Your task to perform on an android device: open a new tab in the chrome app Image 0: 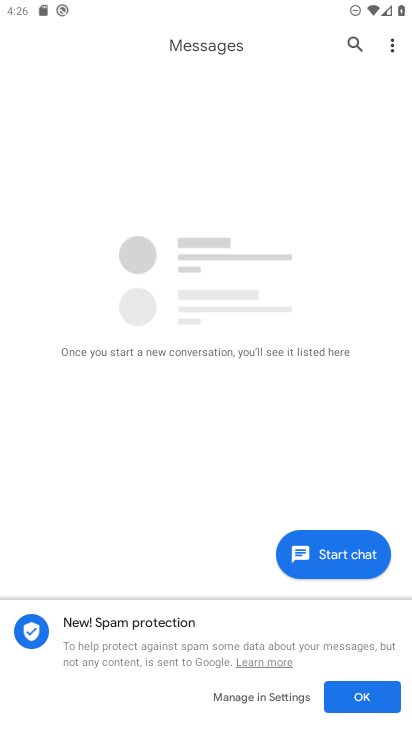
Step 0: press home button
Your task to perform on an android device: open a new tab in the chrome app Image 1: 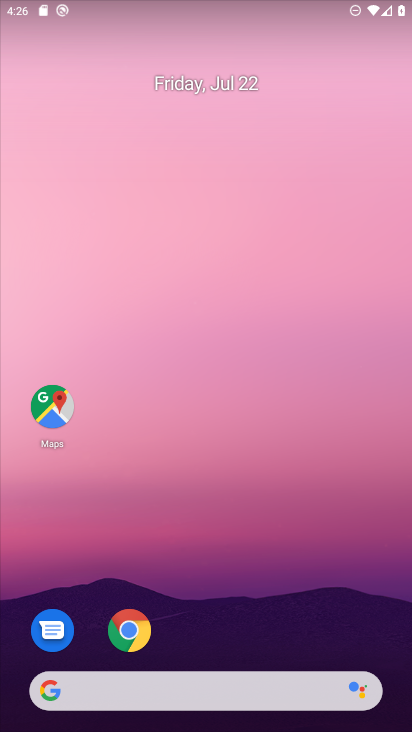
Step 1: click (131, 628)
Your task to perform on an android device: open a new tab in the chrome app Image 2: 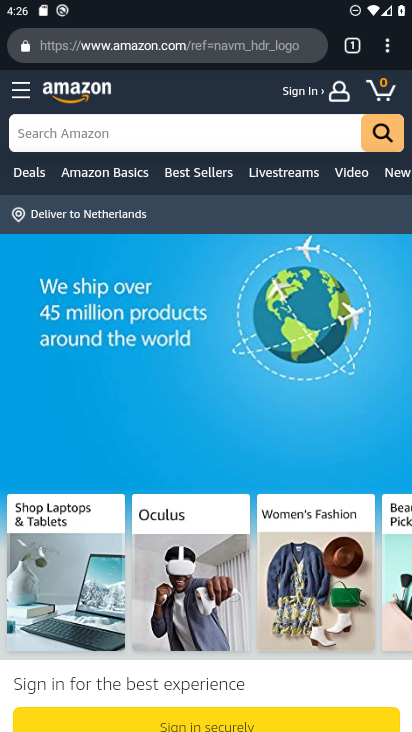
Step 2: click (384, 49)
Your task to perform on an android device: open a new tab in the chrome app Image 3: 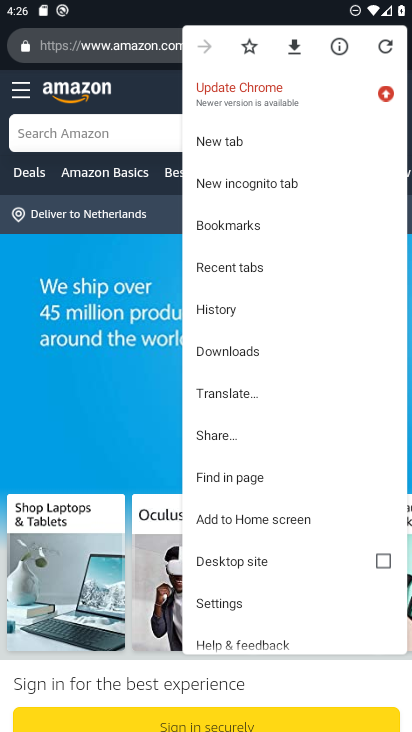
Step 3: click (233, 147)
Your task to perform on an android device: open a new tab in the chrome app Image 4: 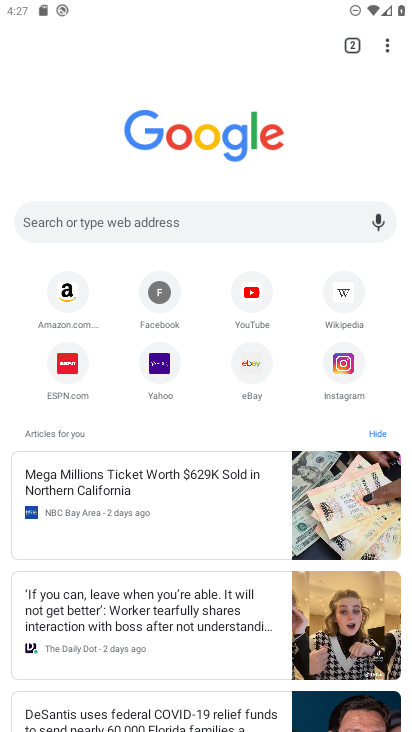
Step 4: task complete